Your task to perform on an android device: delete a single message in the gmail app Image 0: 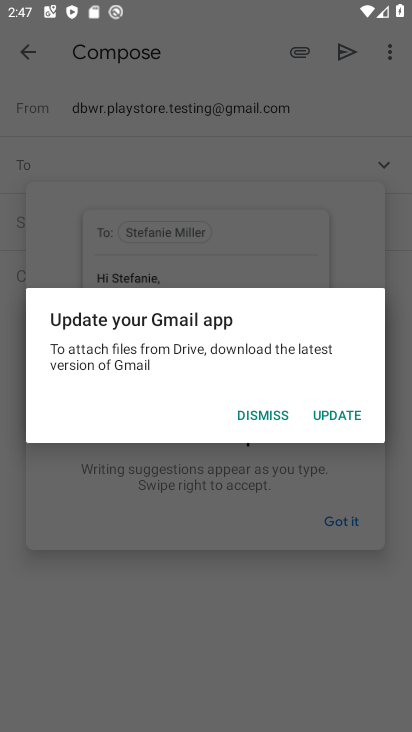
Step 0: press home button
Your task to perform on an android device: delete a single message in the gmail app Image 1: 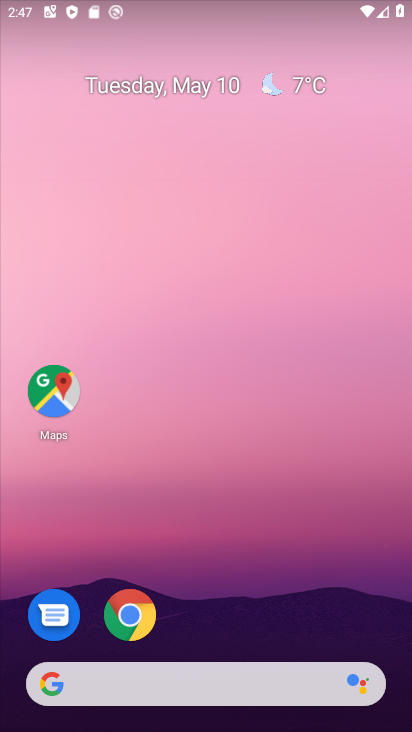
Step 1: drag from (219, 726) to (218, 117)
Your task to perform on an android device: delete a single message in the gmail app Image 2: 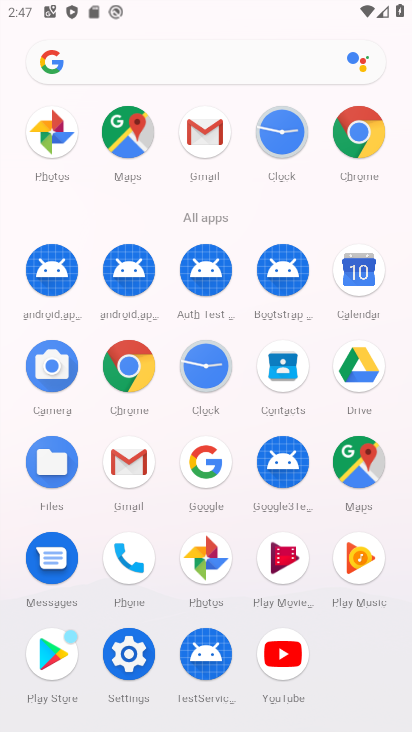
Step 2: click (125, 463)
Your task to perform on an android device: delete a single message in the gmail app Image 3: 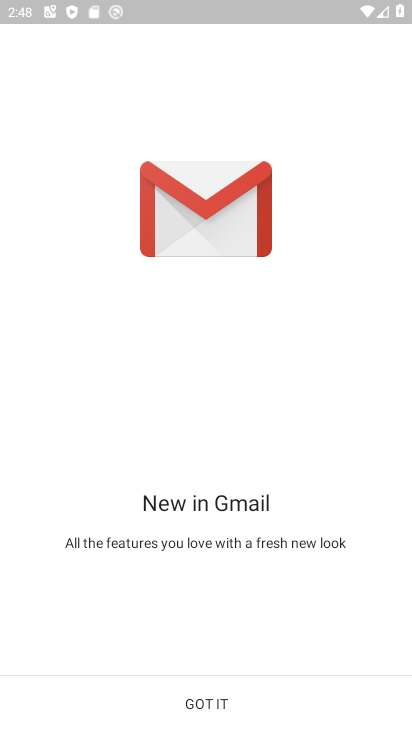
Step 3: click (206, 702)
Your task to perform on an android device: delete a single message in the gmail app Image 4: 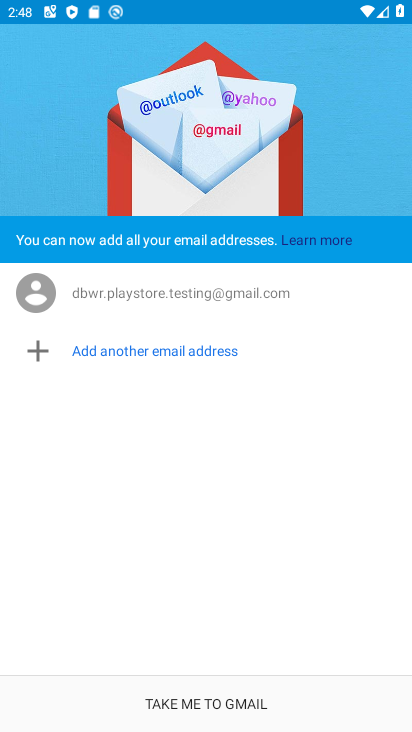
Step 4: click (231, 701)
Your task to perform on an android device: delete a single message in the gmail app Image 5: 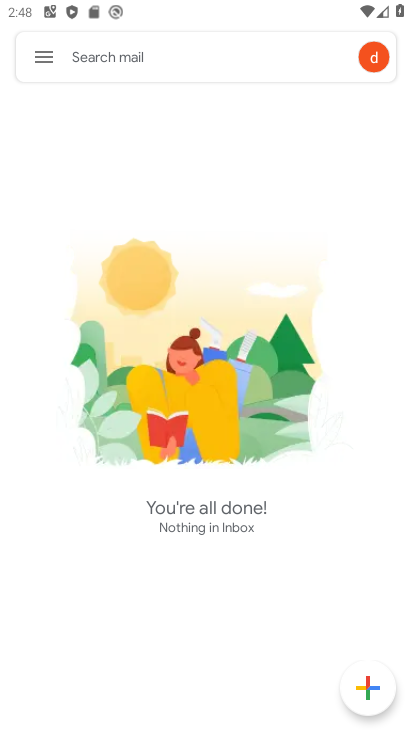
Step 5: task complete